Your task to perform on an android device: Open privacy settings Image 0: 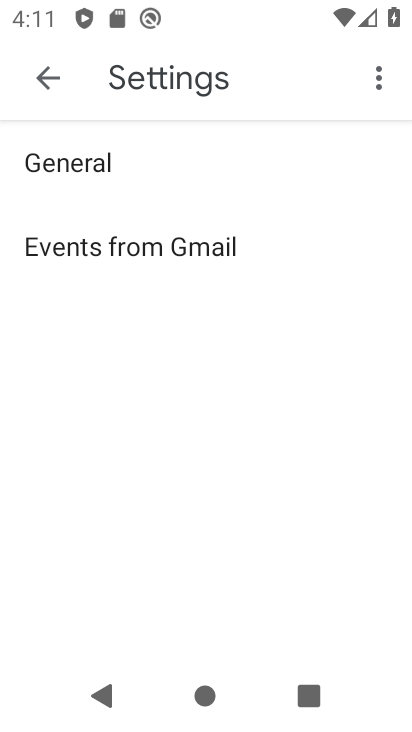
Step 0: press home button
Your task to perform on an android device: Open privacy settings Image 1: 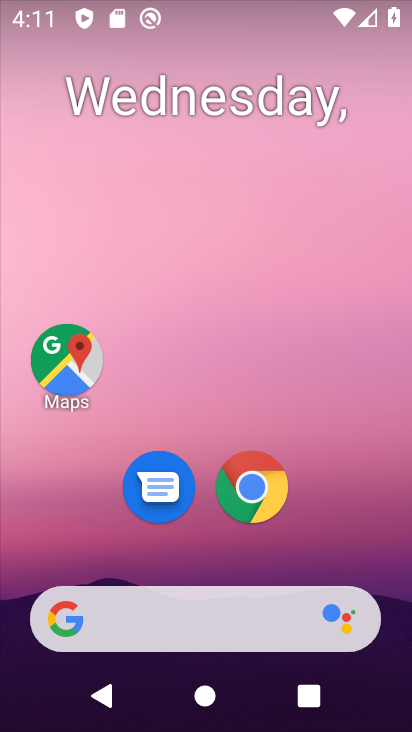
Step 1: drag from (205, 551) to (212, 7)
Your task to perform on an android device: Open privacy settings Image 2: 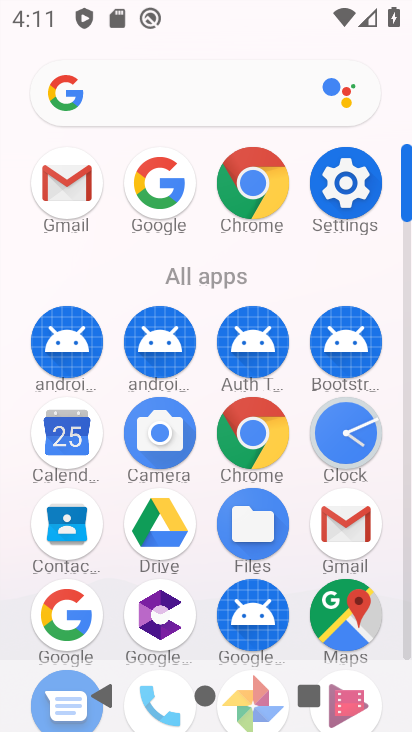
Step 2: click (343, 181)
Your task to perform on an android device: Open privacy settings Image 3: 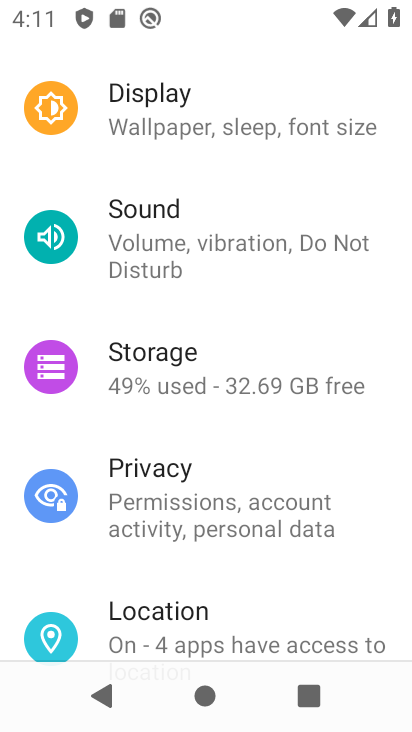
Step 3: click (209, 475)
Your task to perform on an android device: Open privacy settings Image 4: 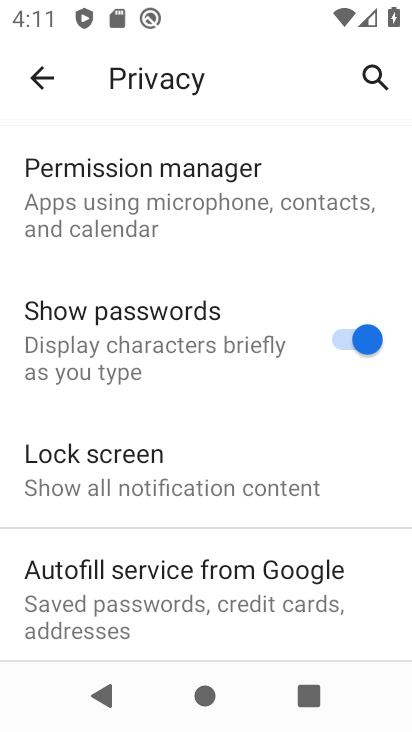
Step 4: drag from (172, 604) to (207, 110)
Your task to perform on an android device: Open privacy settings Image 5: 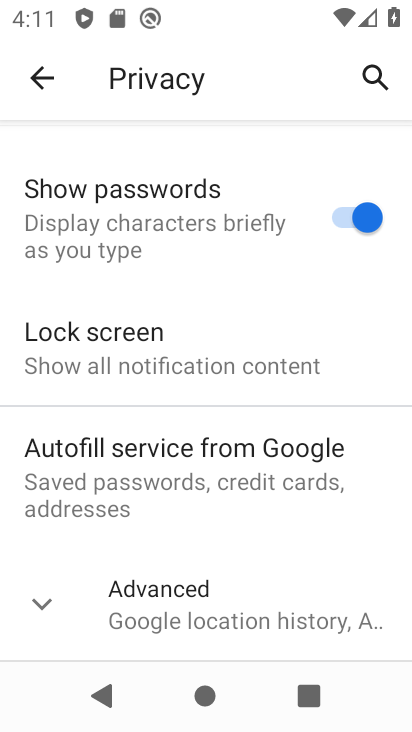
Step 5: click (32, 599)
Your task to perform on an android device: Open privacy settings Image 6: 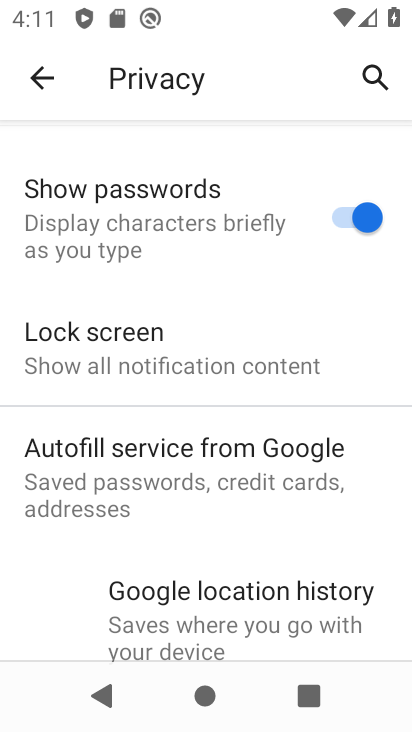
Step 6: task complete